Your task to perform on an android device: Set the phone to "Do not disturb". Image 0: 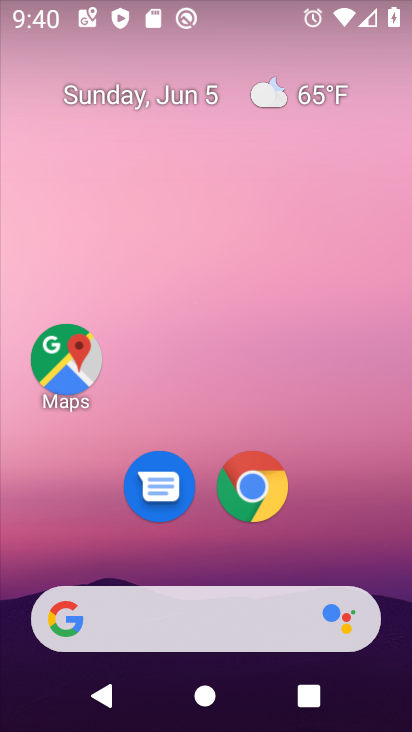
Step 0: drag from (357, 556) to (347, 101)
Your task to perform on an android device: Set the phone to "Do not disturb". Image 1: 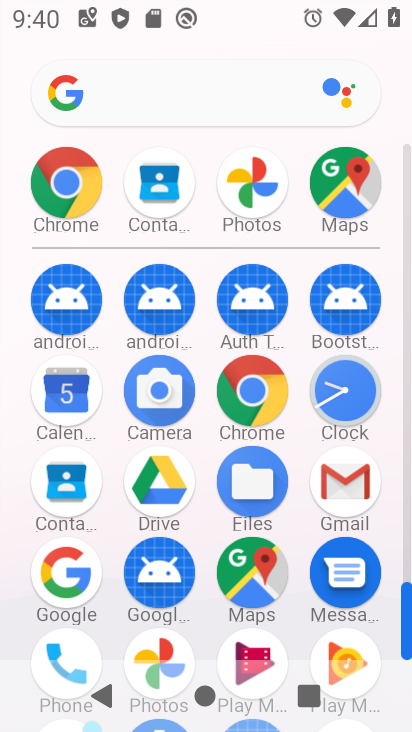
Step 1: drag from (213, 465) to (222, 282)
Your task to perform on an android device: Set the phone to "Do not disturb". Image 2: 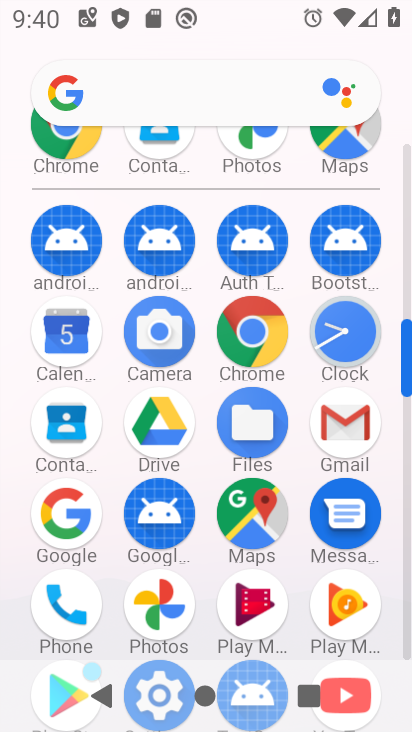
Step 2: drag from (190, 604) to (222, 319)
Your task to perform on an android device: Set the phone to "Do not disturb". Image 3: 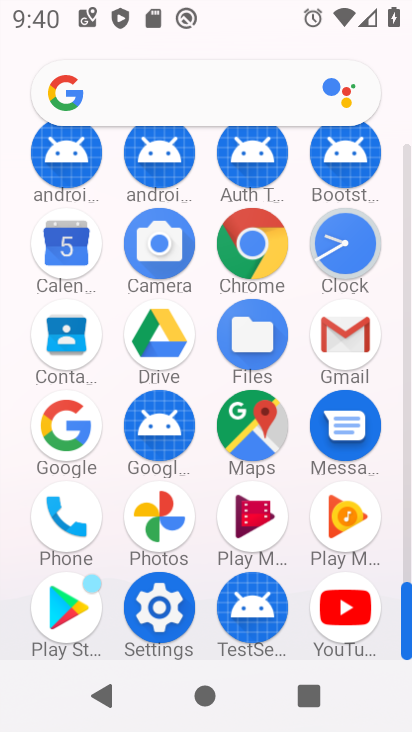
Step 3: click (169, 606)
Your task to perform on an android device: Set the phone to "Do not disturb". Image 4: 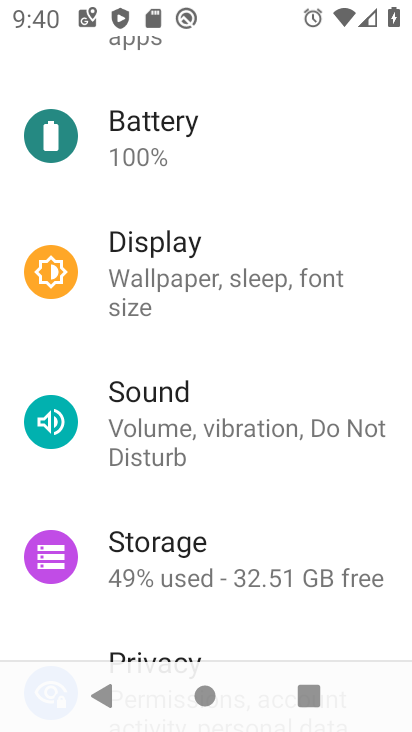
Step 4: drag from (351, 631) to (350, 370)
Your task to perform on an android device: Set the phone to "Do not disturb". Image 5: 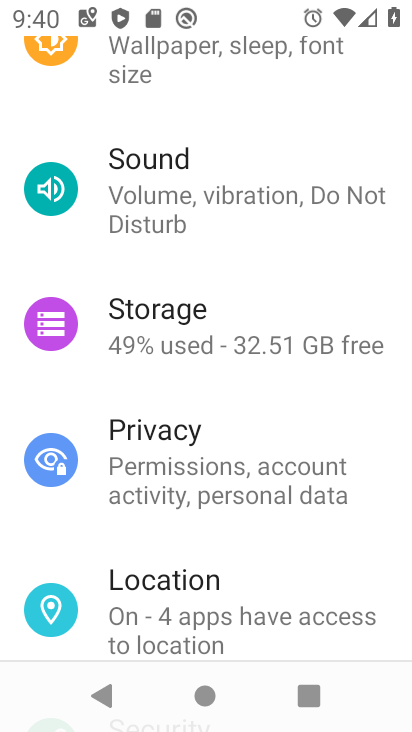
Step 5: click (277, 202)
Your task to perform on an android device: Set the phone to "Do not disturb". Image 6: 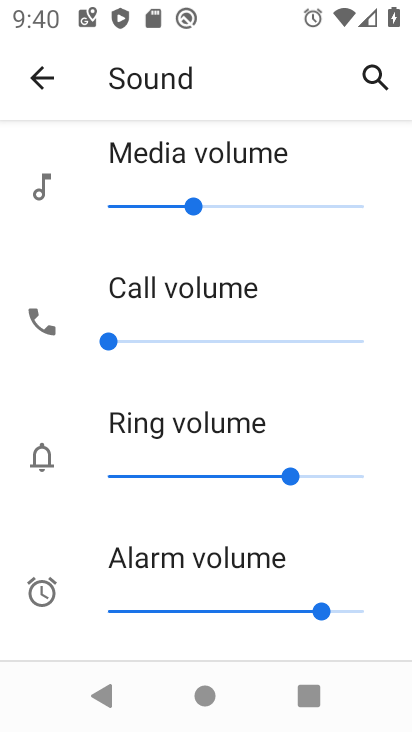
Step 6: task complete